Your task to perform on an android device: turn off wifi Image 0: 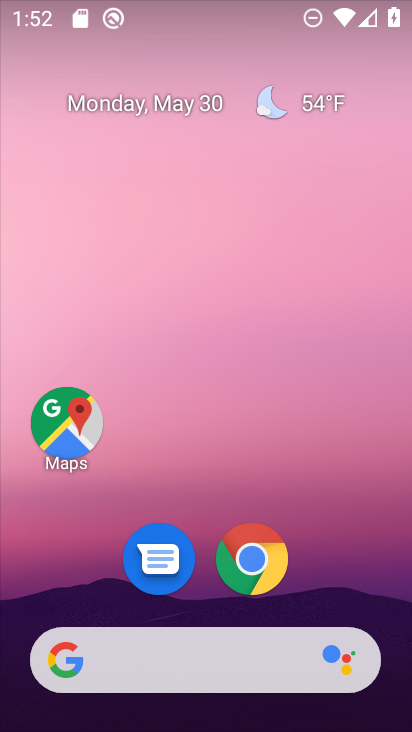
Step 0: drag from (312, 610) to (317, 55)
Your task to perform on an android device: turn off wifi Image 1: 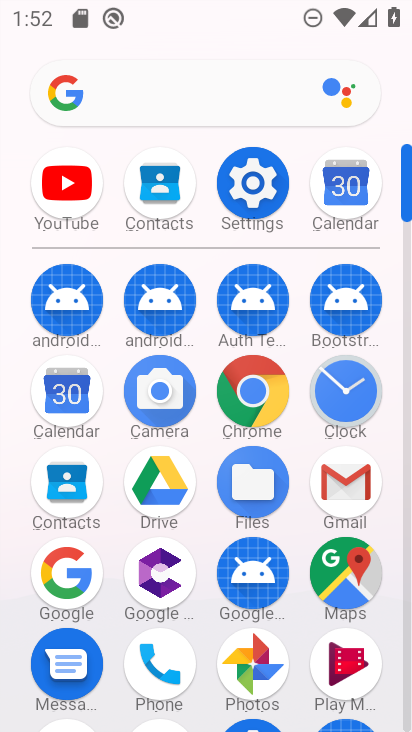
Step 1: click (261, 189)
Your task to perform on an android device: turn off wifi Image 2: 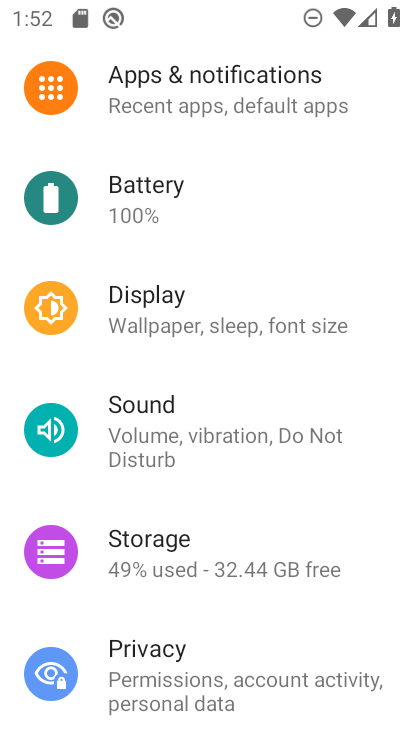
Step 2: drag from (164, 216) to (262, 566)
Your task to perform on an android device: turn off wifi Image 3: 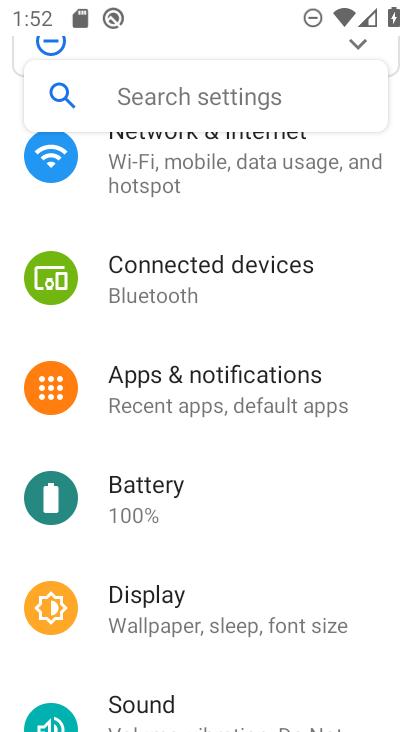
Step 3: click (241, 174)
Your task to perform on an android device: turn off wifi Image 4: 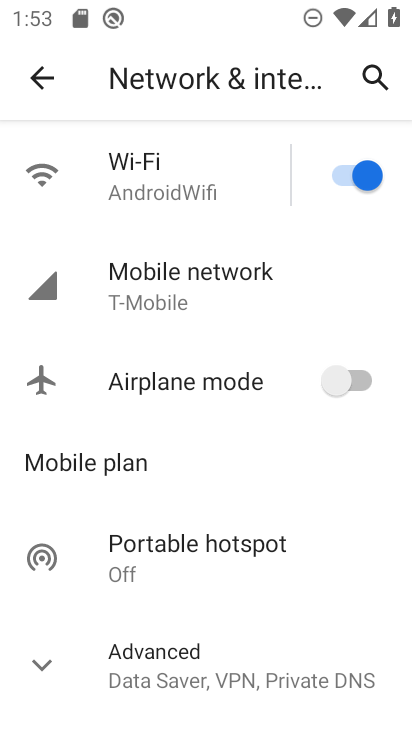
Step 4: click (367, 199)
Your task to perform on an android device: turn off wifi Image 5: 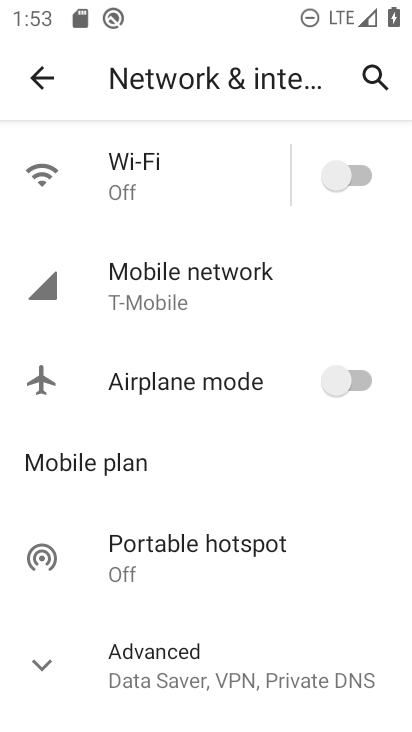
Step 5: task complete